Your task to perform on an android device: open app "Adobe Express: Graphic Design" (install if not already installed) and go to login screen Image 0: 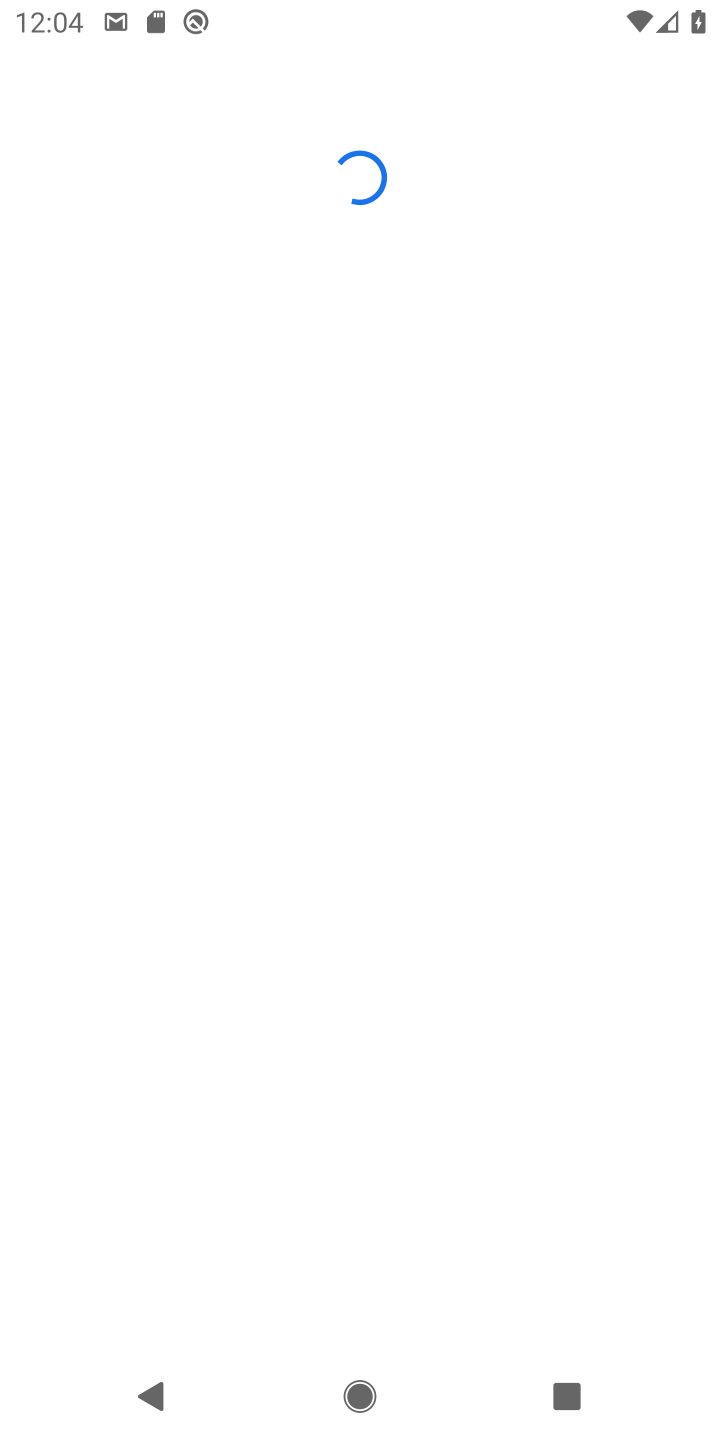
Step 0: press home button
Your task to perform on an android device: open app "Adobe Express: Graphic Design" (install if not already installed) and go to login screen Image 1: 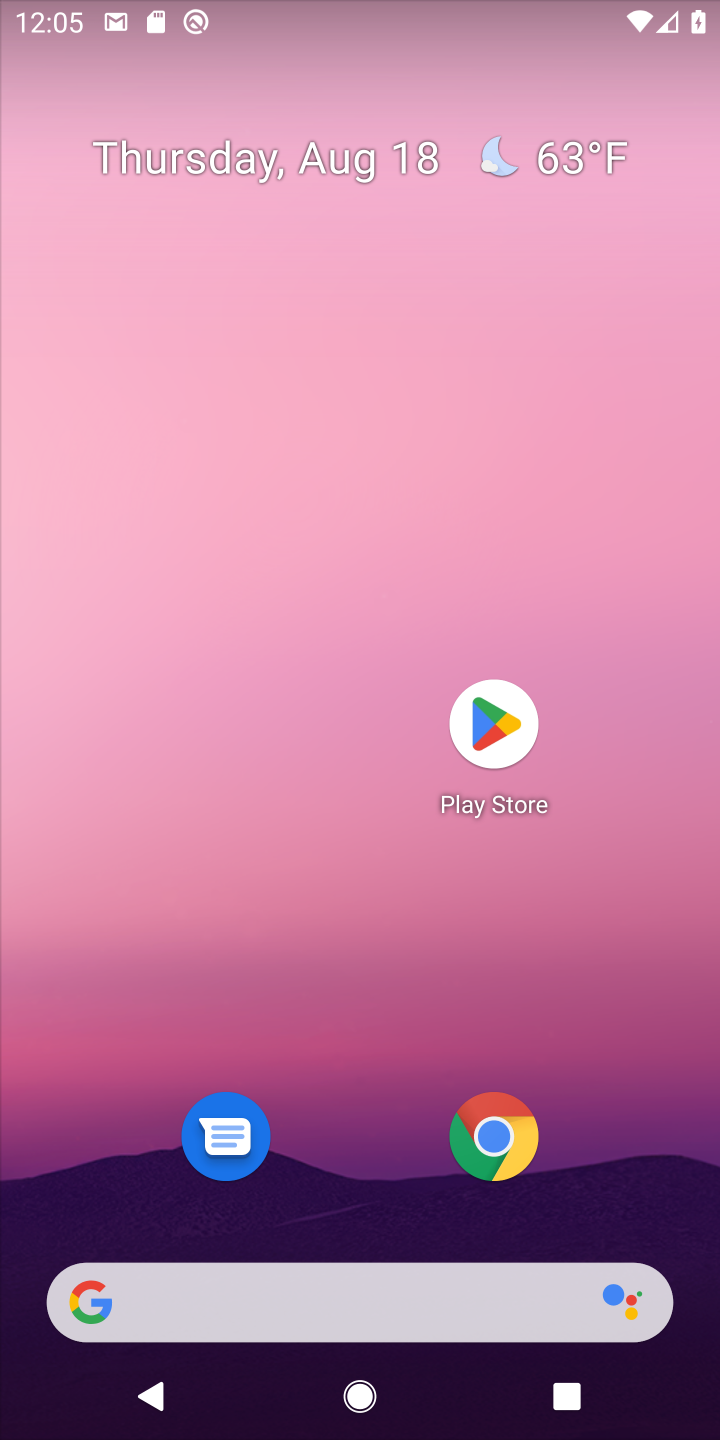
Step 1: click (499, 715)
Your task to perform on an android device: open app "Adobe Express: Graphic Design" (install if not already installed) and go to login screen Image 2: 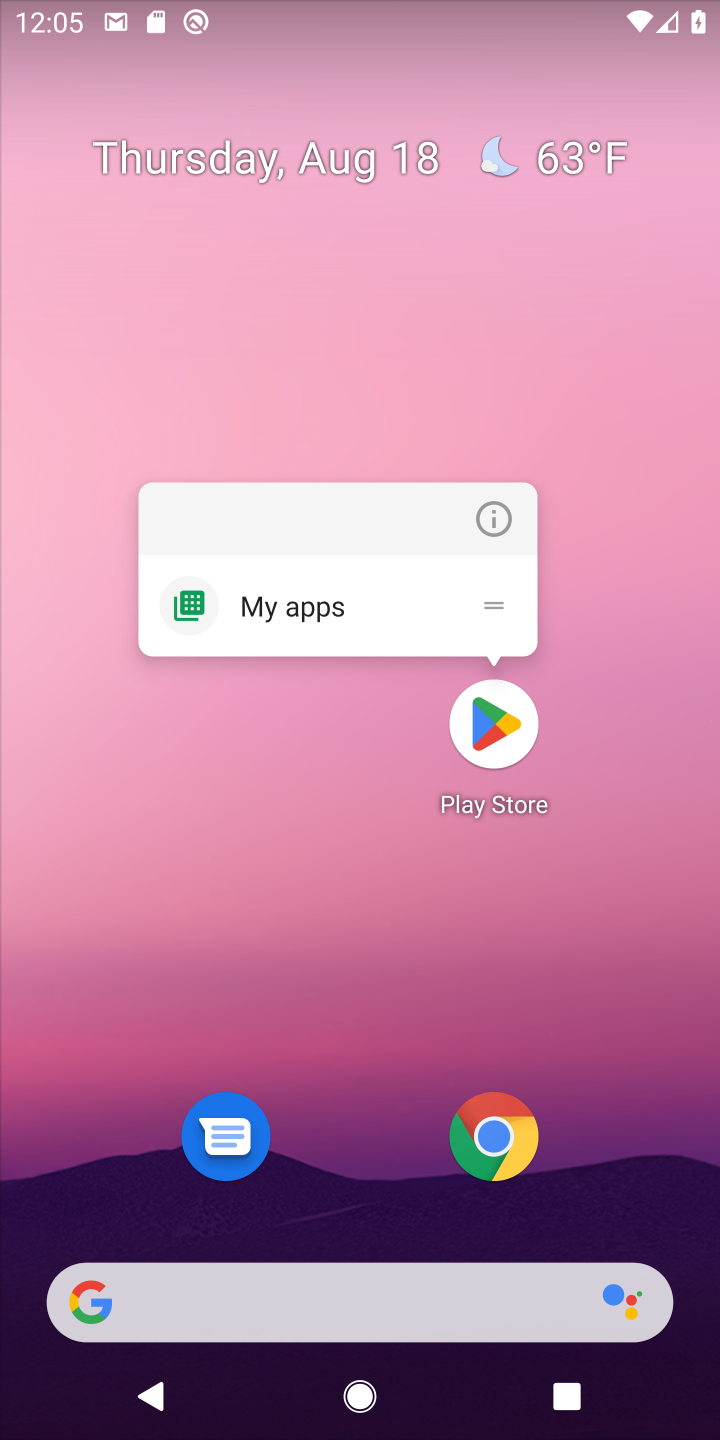
Step 2: click (499, 720)
Your task to perform on an android device: open app "Adobe Express: Graphic Design" (install if not already installed) and go to login screen Image 3: 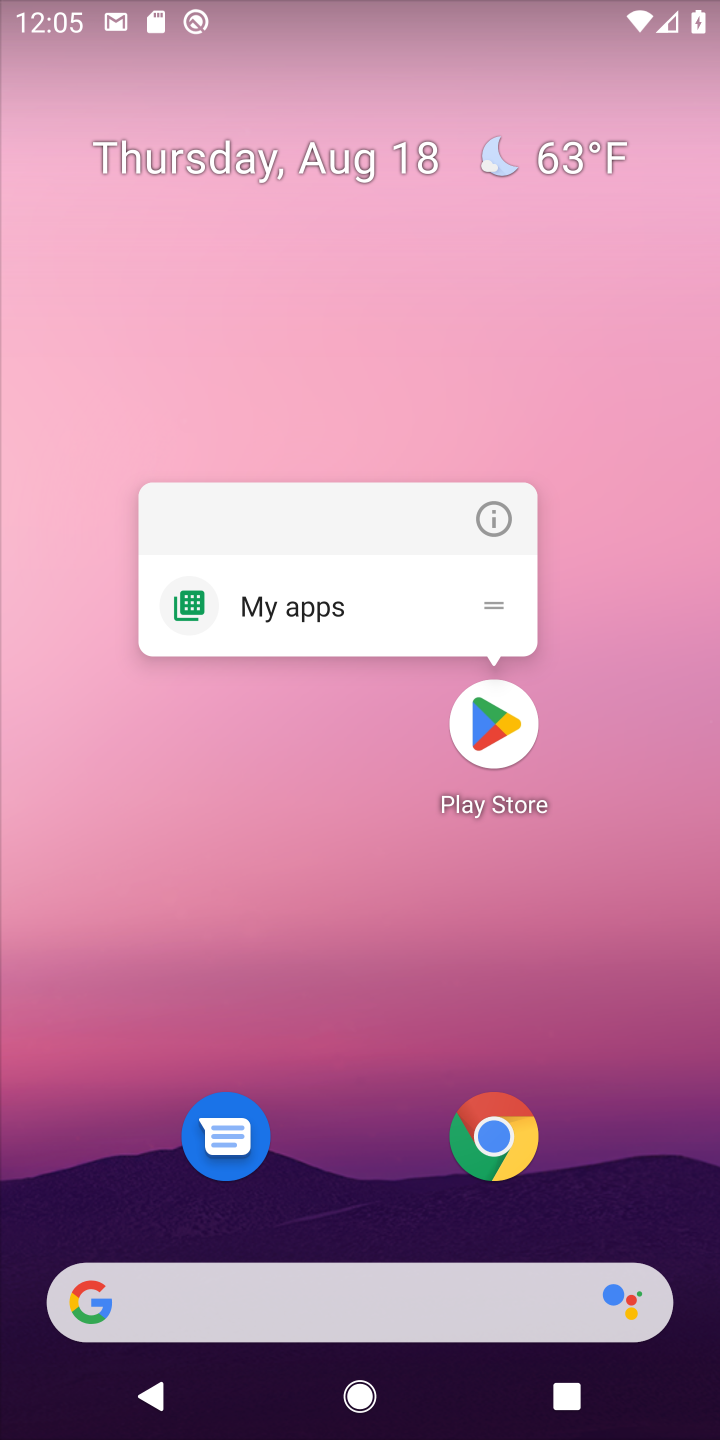
Step 3: click (499, 722)
Your task to perform on an android device: open app "Adobe Express: Graphic Design" (install if not already installed) and go to login screen Image 4: 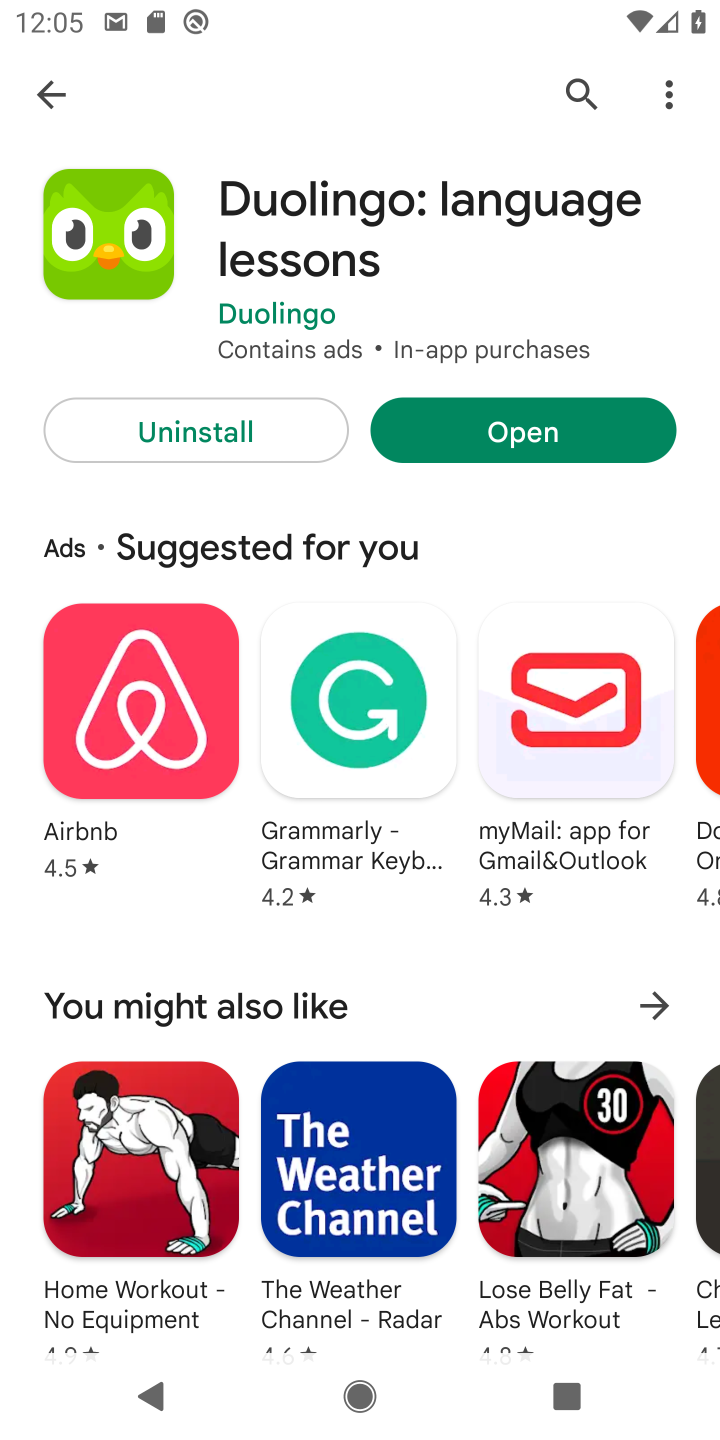
Step 4: click (577, 98)
Your task to perform on an android device: open app "Adobe Express: Graphic Design" (install if not already installed) and go to login screen Image 5: 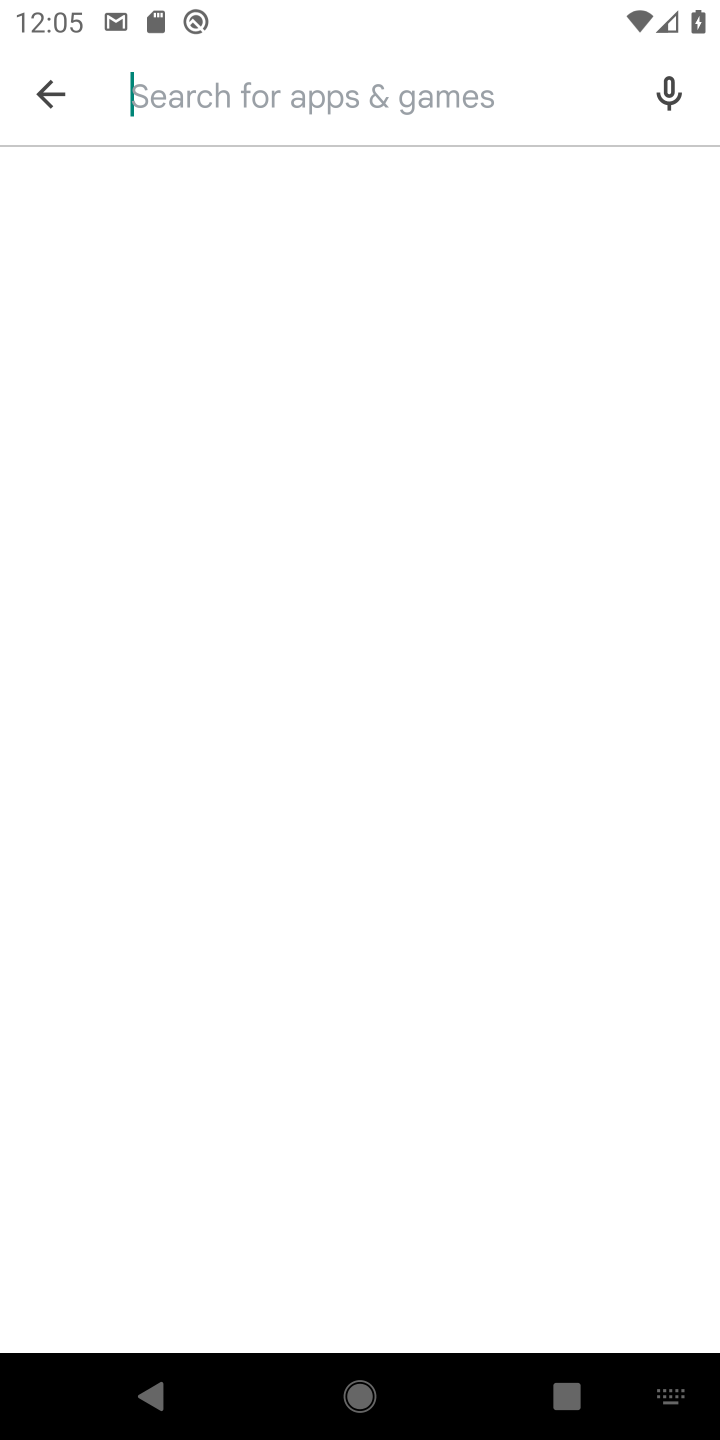
Step 5: type "Adobe Express: Graphic Design"
Your task to perform on an android device: open app "Adobe Express: Graphic Design" (install if not already installed) and go to login screen Image 6: 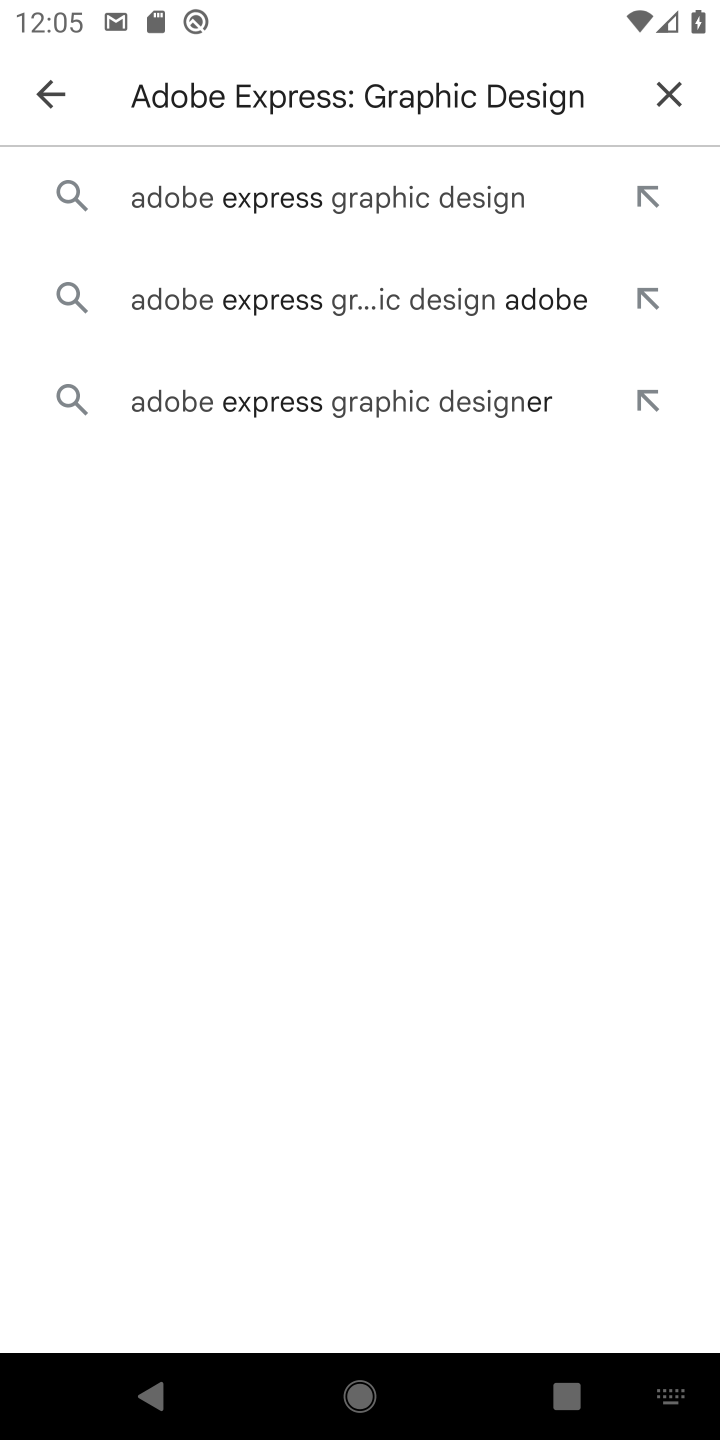
Step 6: click (361, 210)
Your task to perform on an android device: open app "Adobe Express: Graphic Design" (install if not already installed) and go to login screen Image 7: 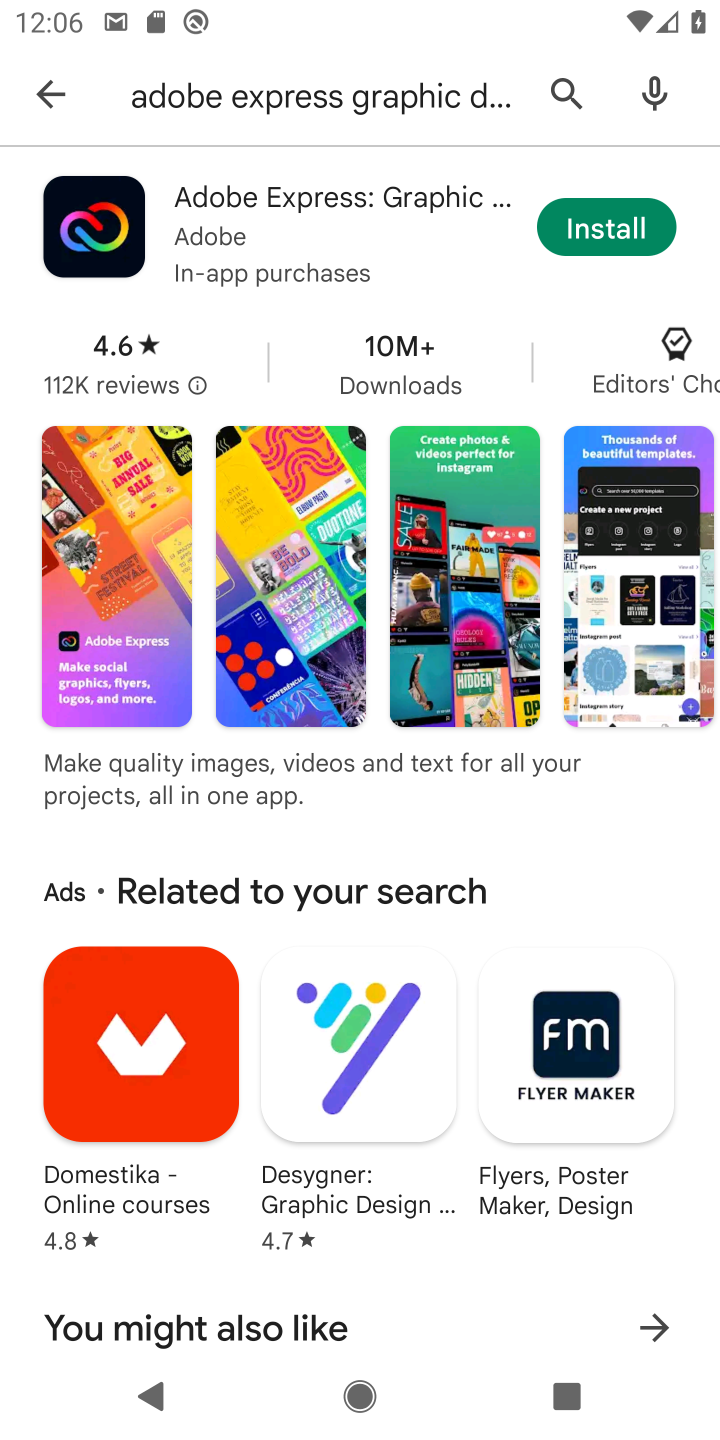
Step 7: click (606, 232)
Your task to perform on an android device: open app "Adobe Express: Graphic Design" (install if not already installed) and go to login screen Image 8: 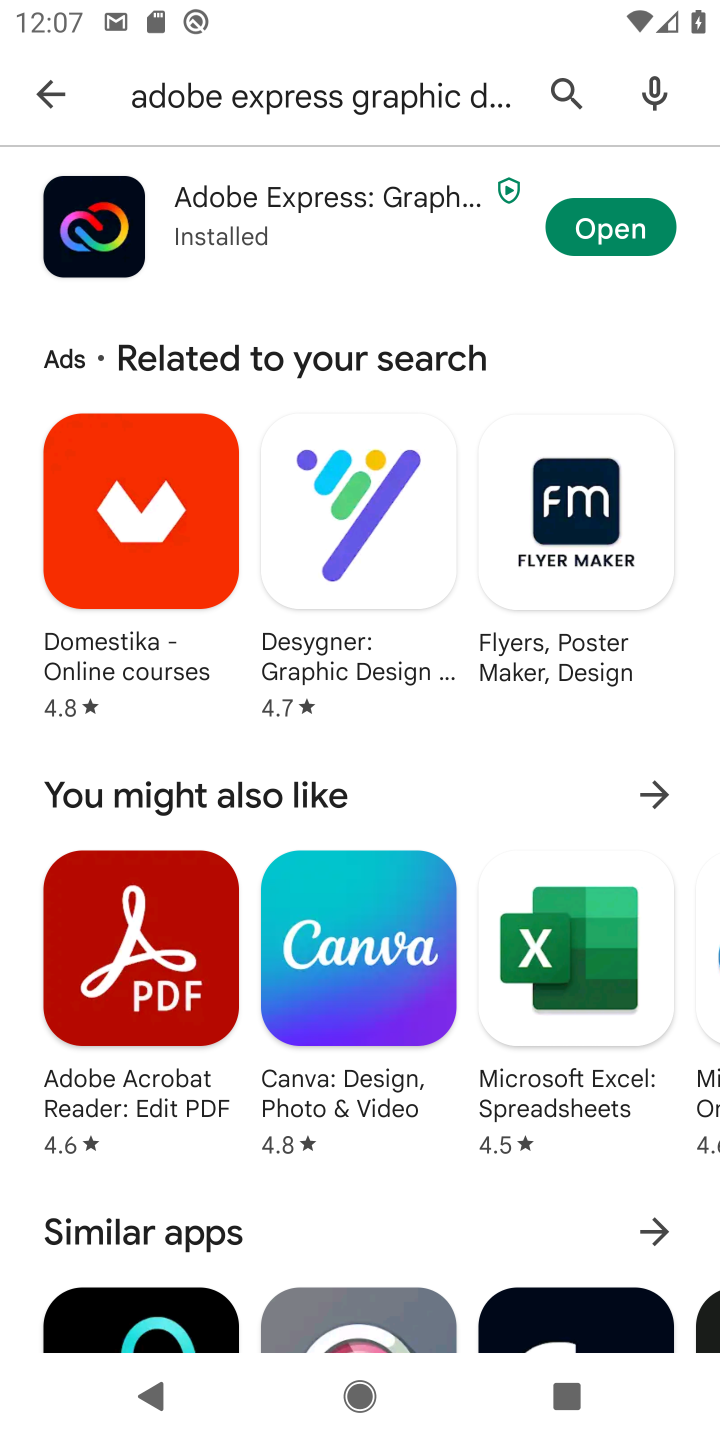
Step 8: click (621, 229)
Your task to perform on an android device: open app "Adobe Express: Graphic Design" (install if not already installed) and go to login screen Image 9: 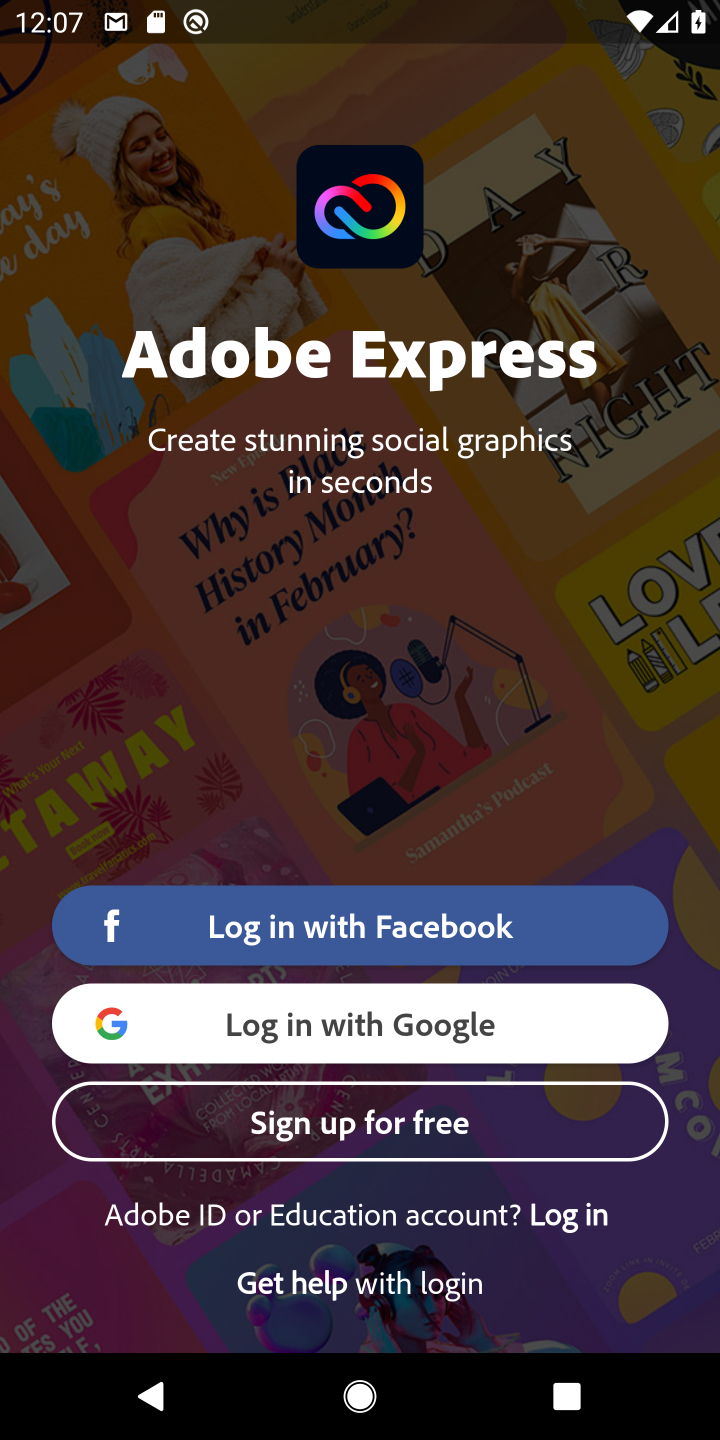
Step 9: click (547, 1205)
Your task to perform on an android device: open app "Adobe Express: Graphic Design" (install if not already installed) and go to login screen Image 10: 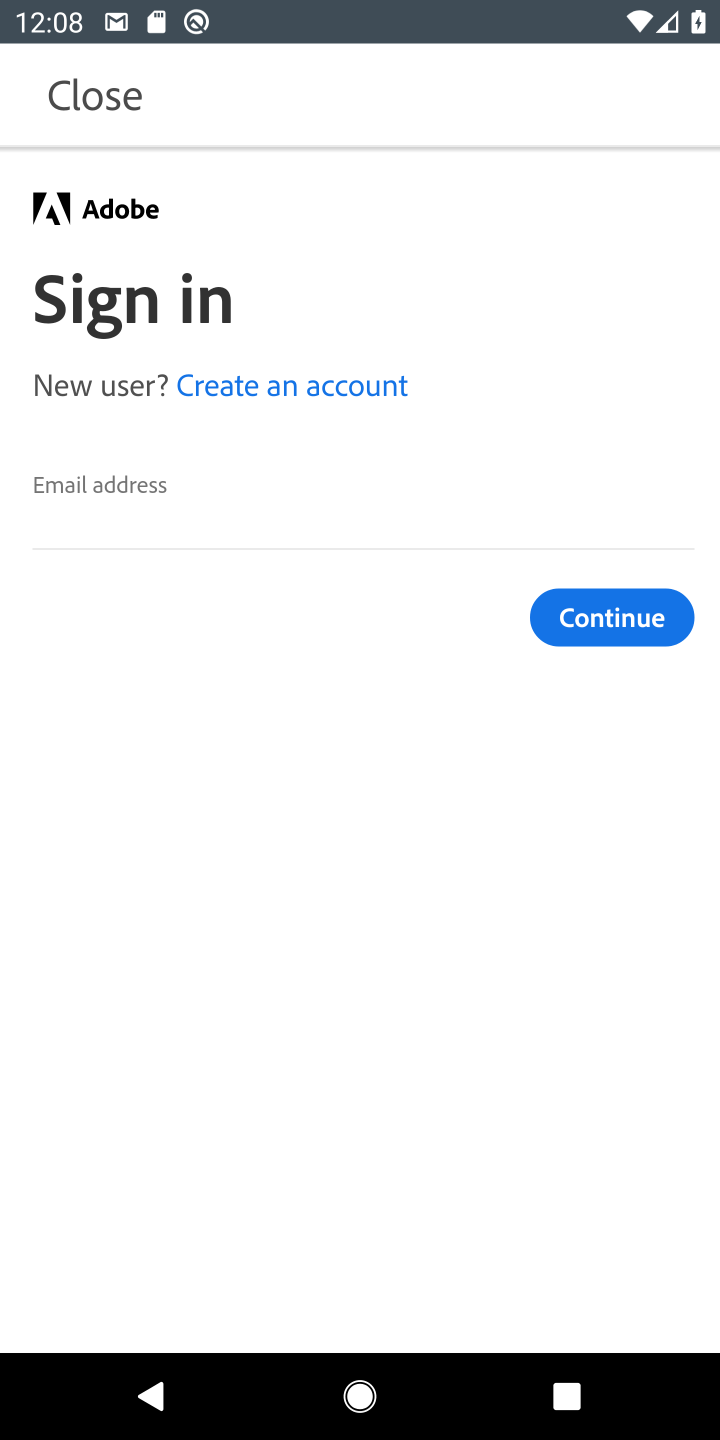
Step 10: task complete